Your task to perform on an android device: turn off data saver in the chrome app Image 0: 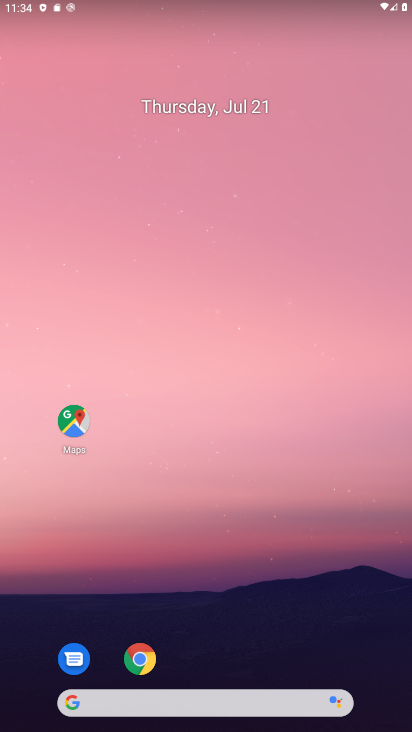
Step 0: click (151, 645)
Your task to perform on an android device: turn off data saver in the chrome app Image 1: 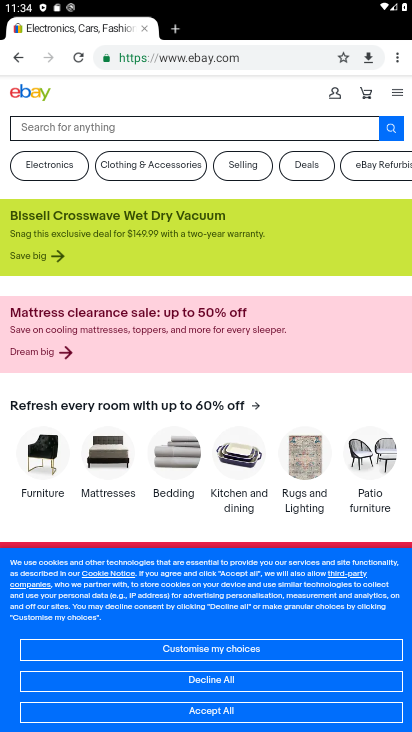
Step 1: click (402, 65)
Your task to perform on an android device: turn off data saver in the chrome app Image 2: 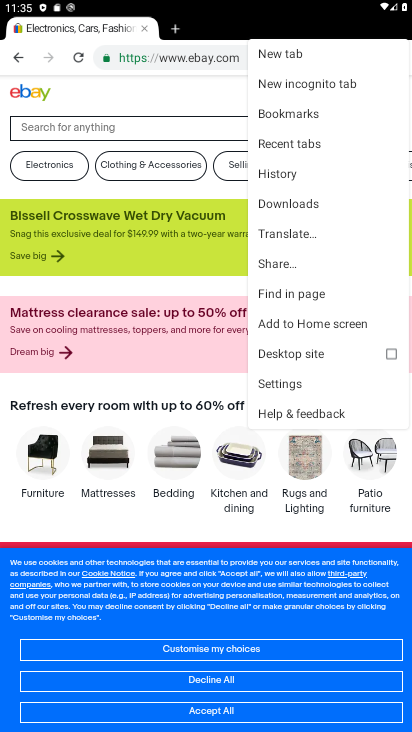
Step 2: click (319, 372)
Your task to perform on an android device: turn off data saver in the chrome app Image 3: 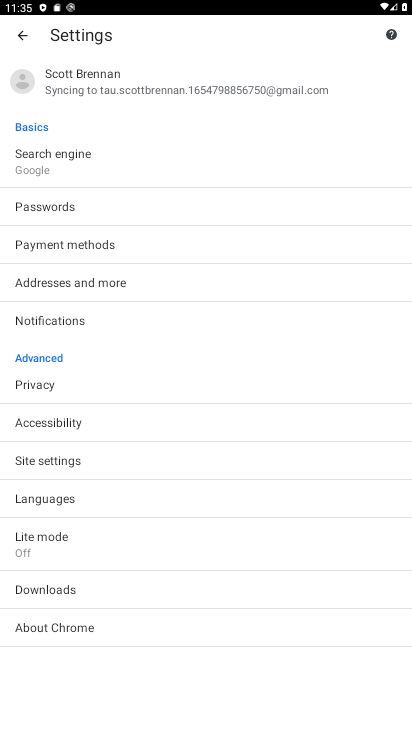
Step 3: task complete